Your task to perform on an android device: Go to network settings Image 0: 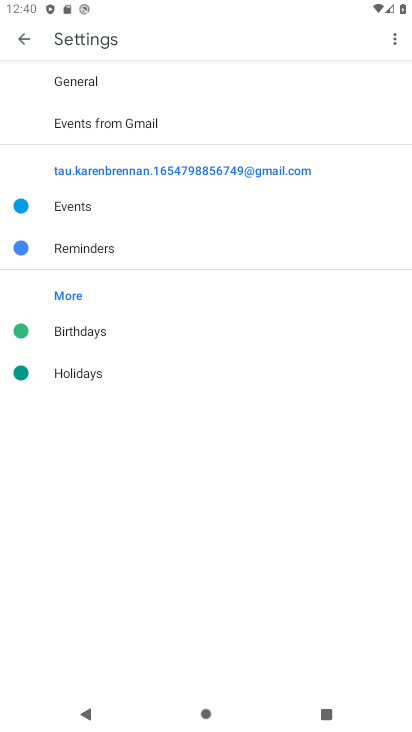
Step 0: task complete